Your task to perform on an android device: Find coffee shops on Maps Image 0: 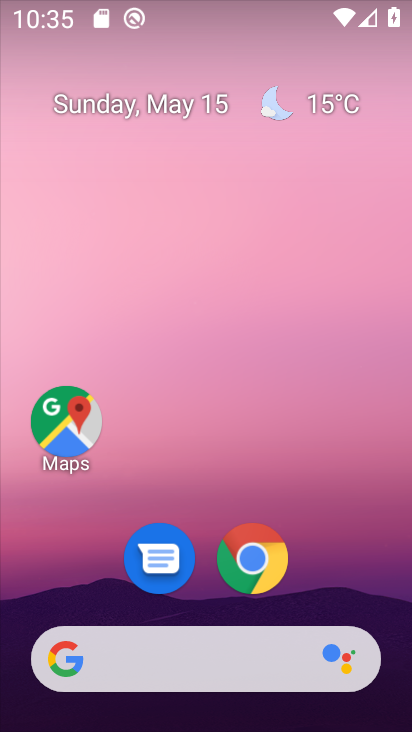
Step 0: click (72, 425)
Your task to perform on an android device: Find coffee shops on Maps Image 1: 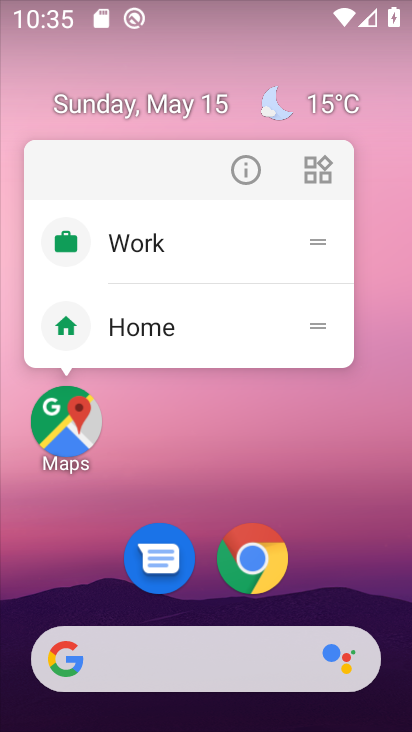
Step 1: click (77, 440)
Your task to perform on an android device: Find coffee shops on Maps Image 2: 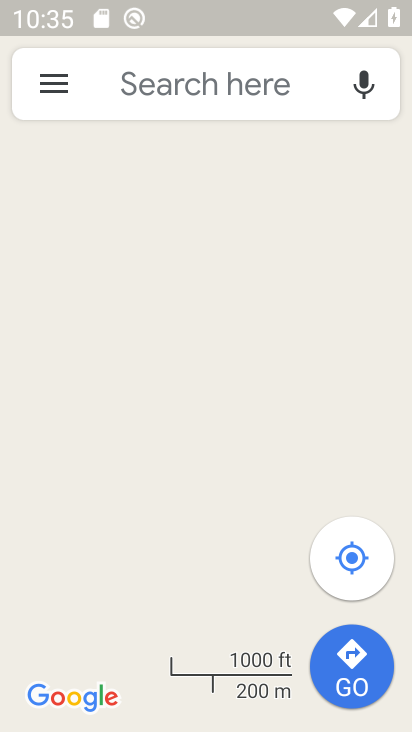
Step 2: click (209, 92)
Your task to perform on an android device: Find coffee shops on Maps Image 3: 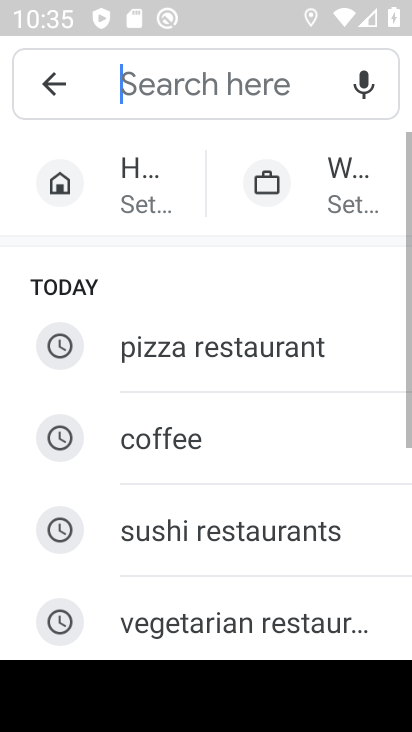
Step 3: type "Coffee shops"
Your task to perform on an android device: Find coffee shops on Maps Image 4: 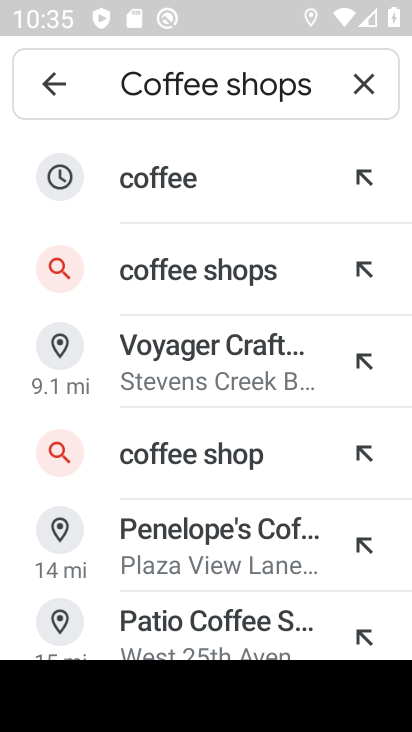
Step 4: click (254, 296)
Your task to perform on an android device: Find coffee shops on Maps Image 5: 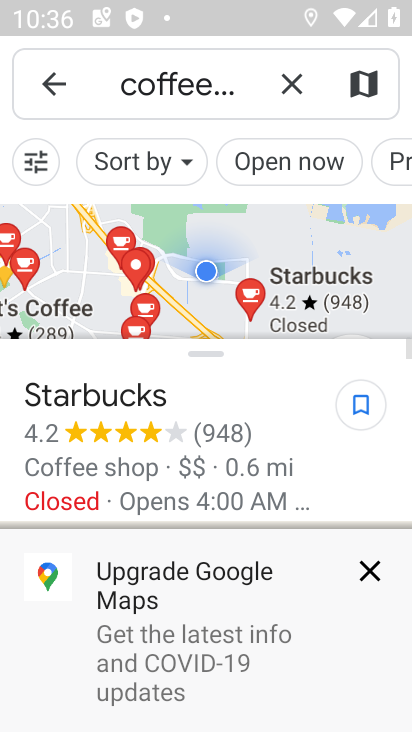
Step 5: click (357, 577)
Your task to perform on an android device: Find coffee shops on Maps Image 6: 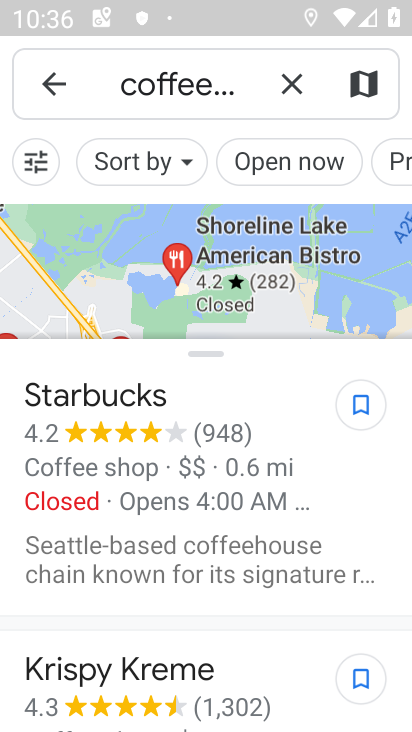
Step 6: task complete